Your task to perform on an android device: turn off priority inbox in the gmail app Image 0: 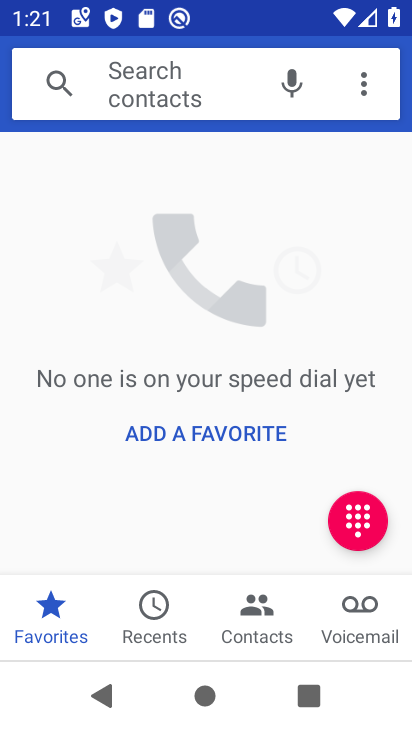
Step 0: press back button
Your task to perform on an android device: turn off priority inbox in the gmail app Image 1: 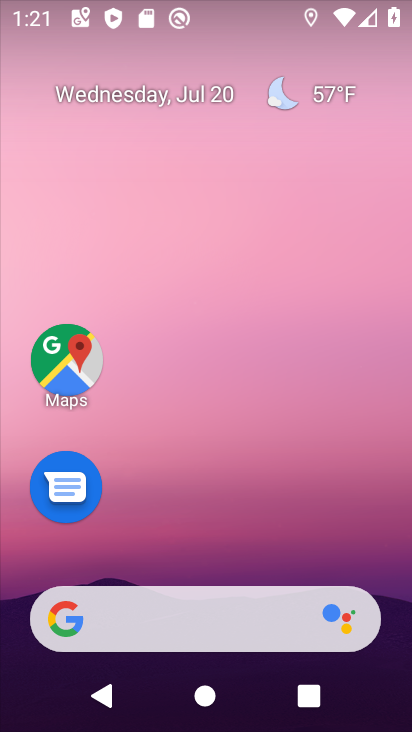
Step 1: drag from (118, 524) to (170, 28)
Your task to perform on an android device: turn off priority inbox in the gmail app Image 2: 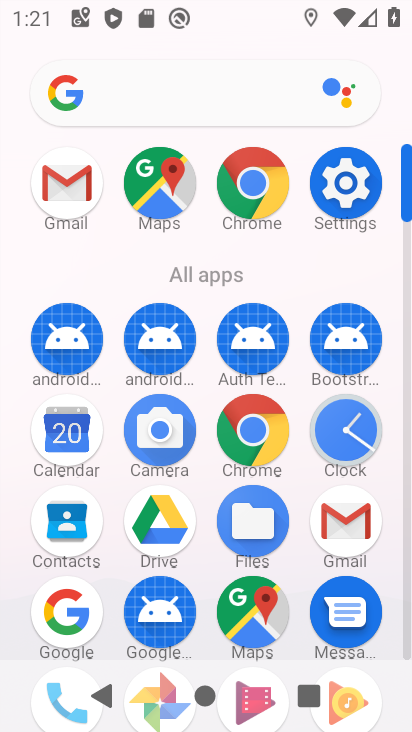
Step 2: click (67, 198)
Your task to perform on an android device: turn off priority inbox in the gmail app Image 3: 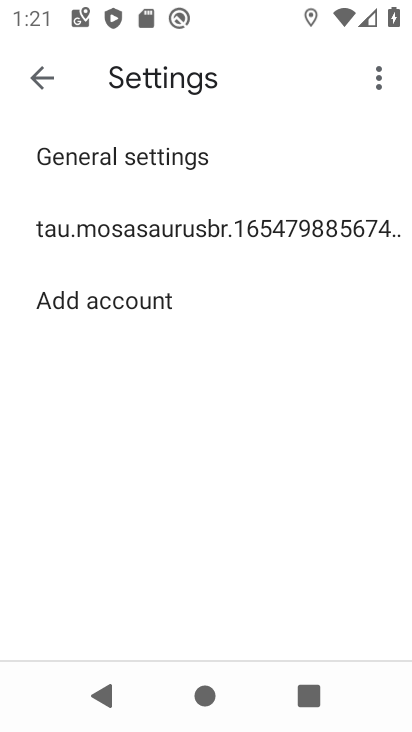
Step 3: click (72, 217)
Your task to perform on an android device: turn off priority inbox in the gmail app Image 4: 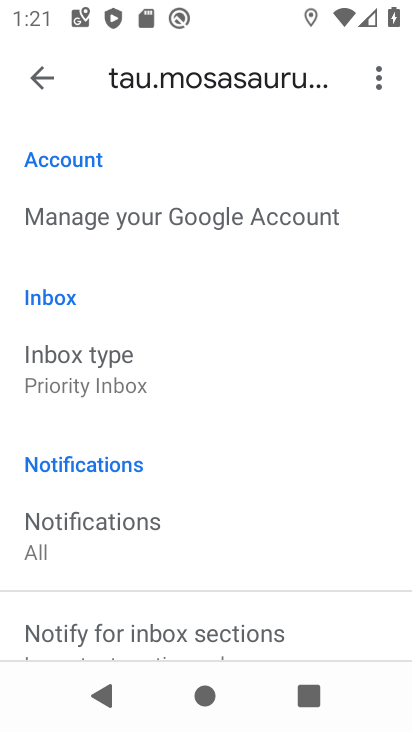
Step 4: click (95, 370)
Your task to perform on an android device: turn off priority inbox in the gmail app Image 5: 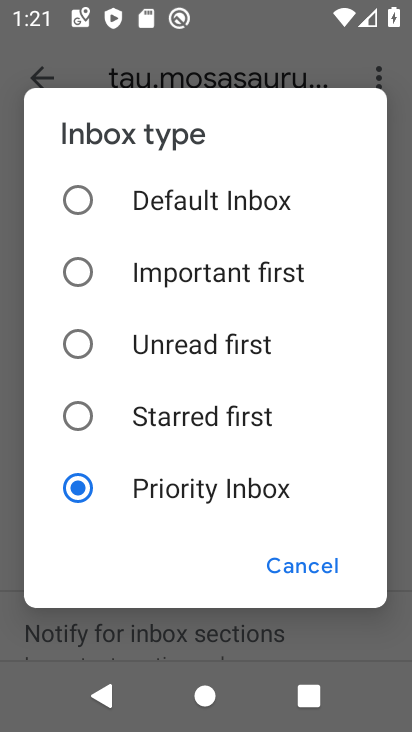
Step 5: click (76, 204)
Your task to perform on an android device: turn off priority inbox in the gmail app Image 6: 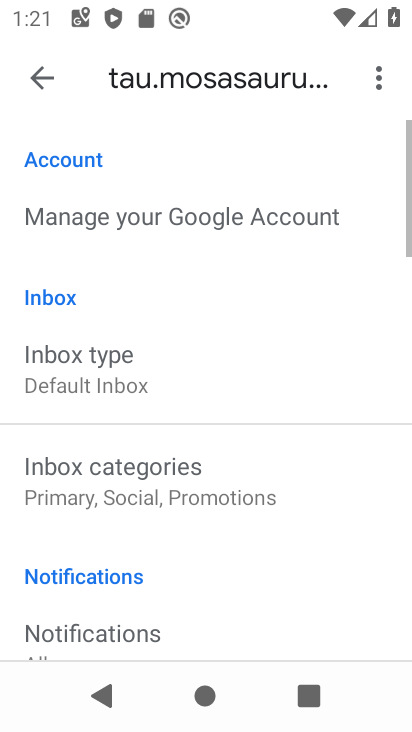
Step 6: task complete